Your task to perform on an android device: Open internet settings Image 0: 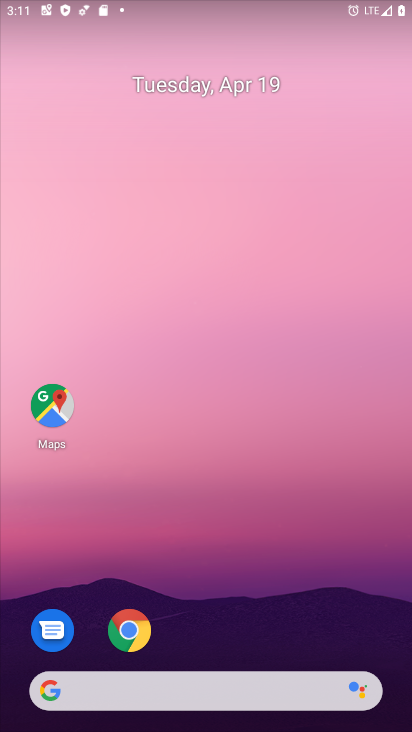
Step 0: drag from (223, 725) to (222, 27)
Your task to perform on an android device: Open internet settings Image 1: 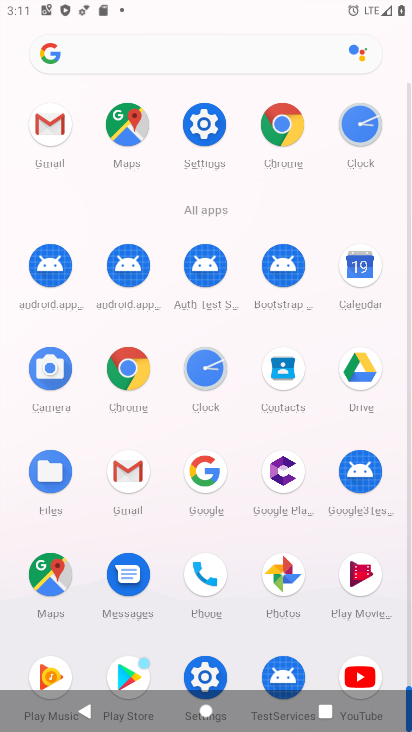
Step 1: click (211, 128)
Your task to perform on an android device: Open internet settings Image 2: 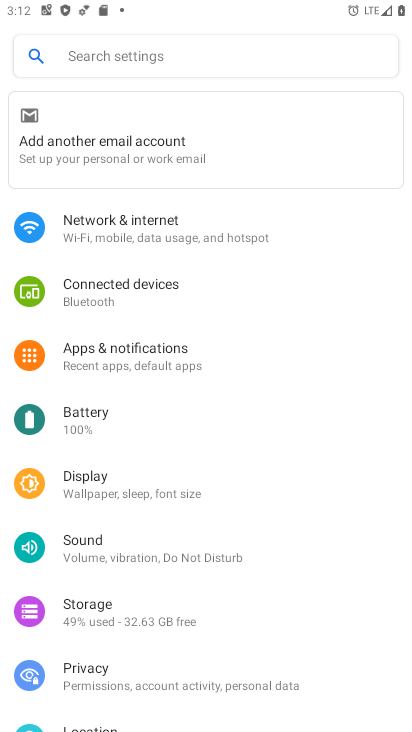
Step 2: click (117, 235)
Your task to perform on an android device: Open internet settings Image 3: 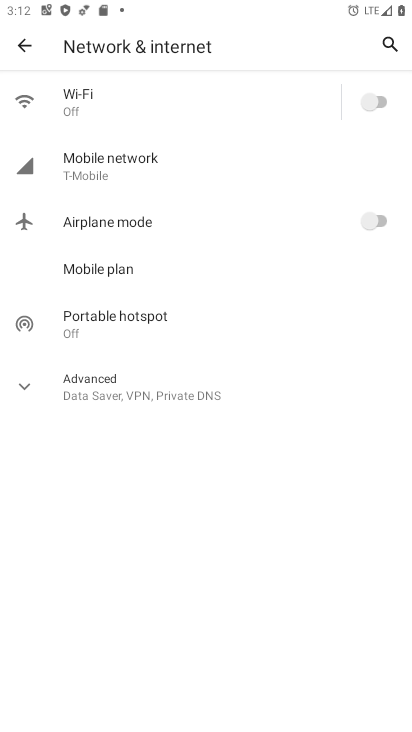
Step 3: task complete